Your task to perform on an android device: turn off sleep mode Image 0: 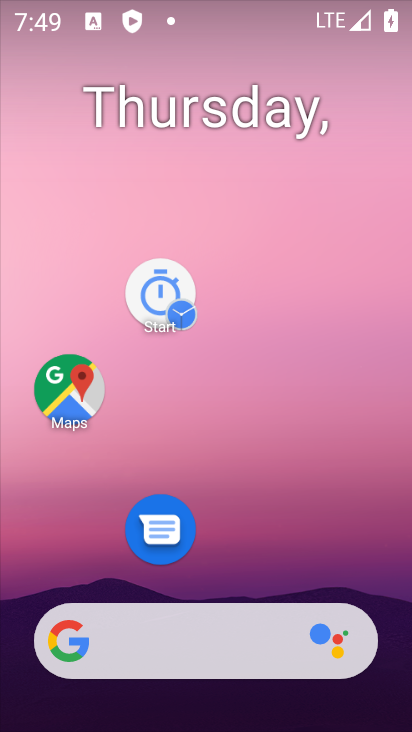
Step 0: drag from (310, 602) to (269, 162)
Your task to perform on an android device: turn off sleep mode Image 1: 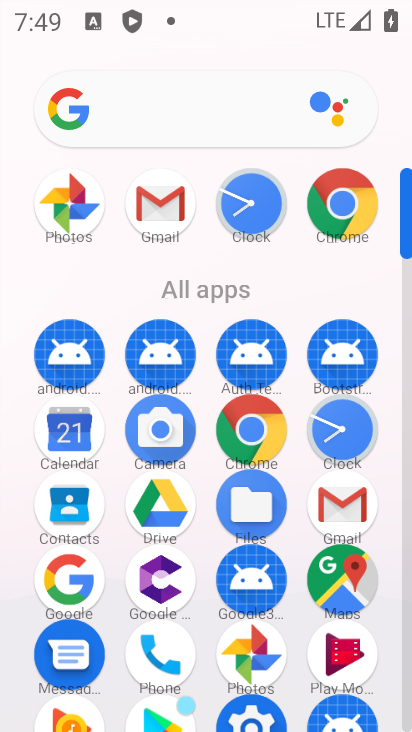
Step 1: task complete